Your task to perform on an android device: When is my next appointment? Image 0: 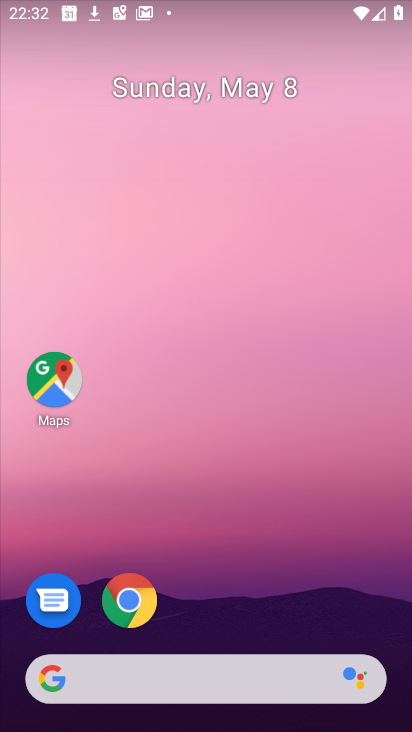
Step 0: drag from (236, 712) to (278, 263)
Your task to perform on an android device: When is my next appointment? Image 1: 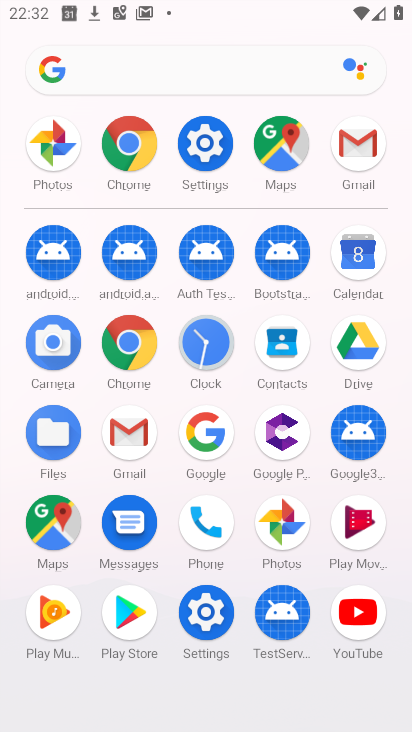
Step 1: click (349, 264)
Your task to perform on an android device: When is my next appointment? Image 2: 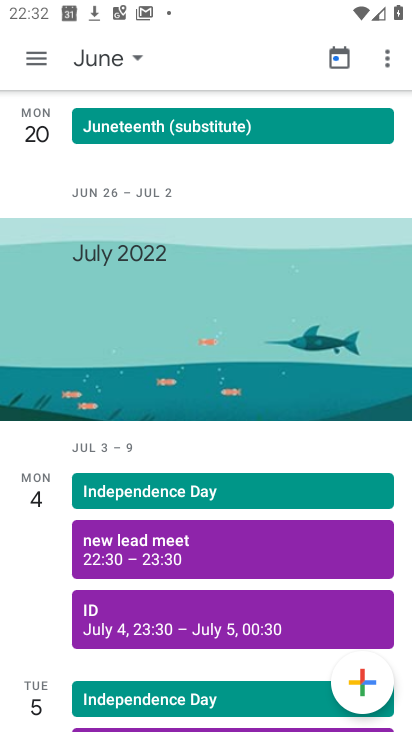
Step 2: click (38, 60)
Your task to perform on an android device: When is my next appointment? Image 3: 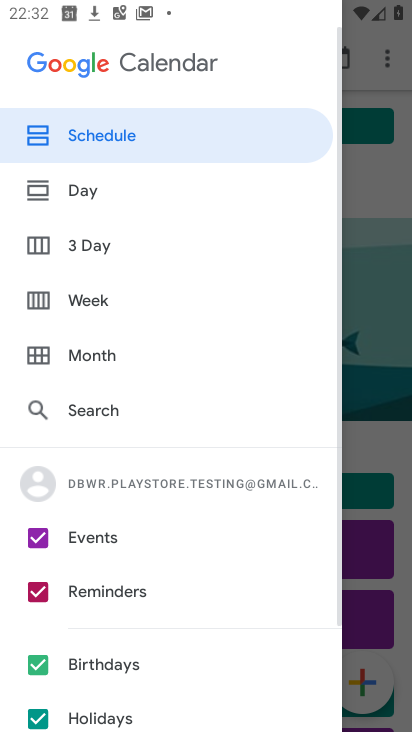
Step 3: click (87, 353)
Your task to perform on an android device: When is my next appointment? Image 4: 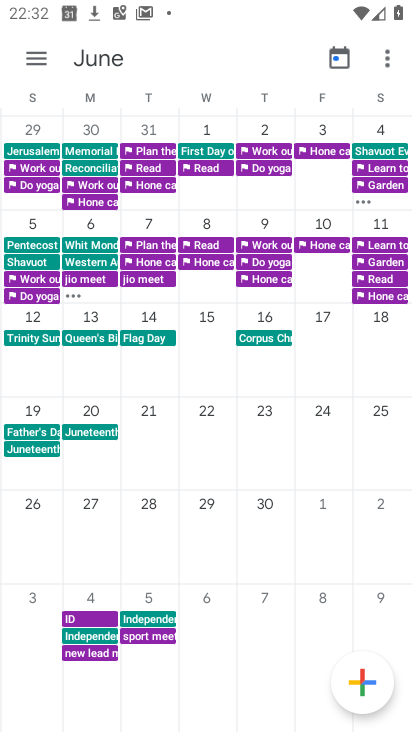
Step 4: click (22, 390)
Your task to perform on an android device: When is my next appointment? Image 5: 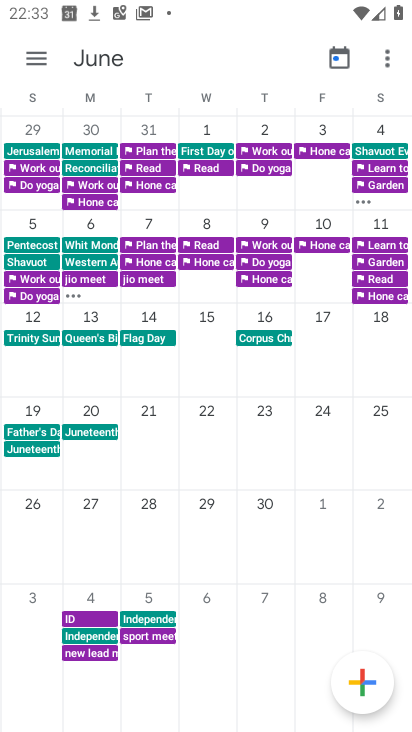
Step 5: drag from (83, 363) to (407, 283)
Your task to perform on an android device: When is my next appointment? Image 6: 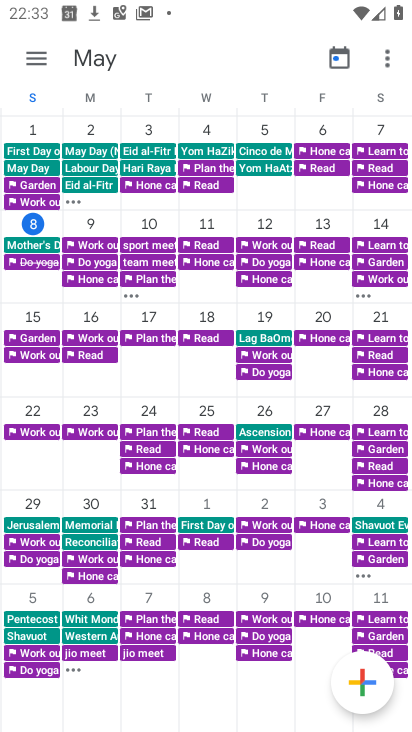
Step 6: click (25, 58)
Your task to perform on an android device: When is my next appointment? Image 7: 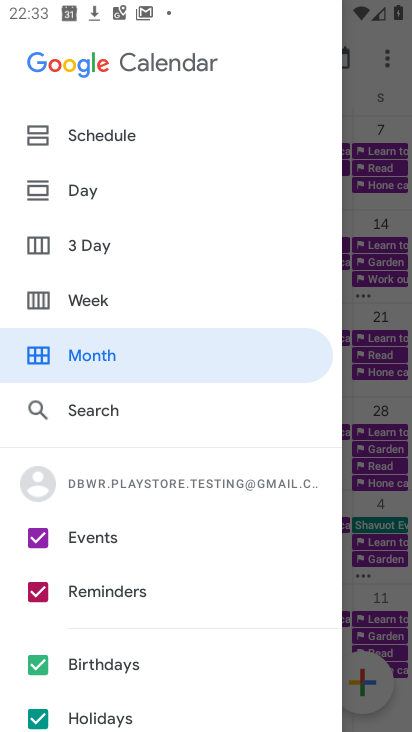
Step 7: click (99, 131)
Your task to perform on an android device: When is my next appointment? Image 8: 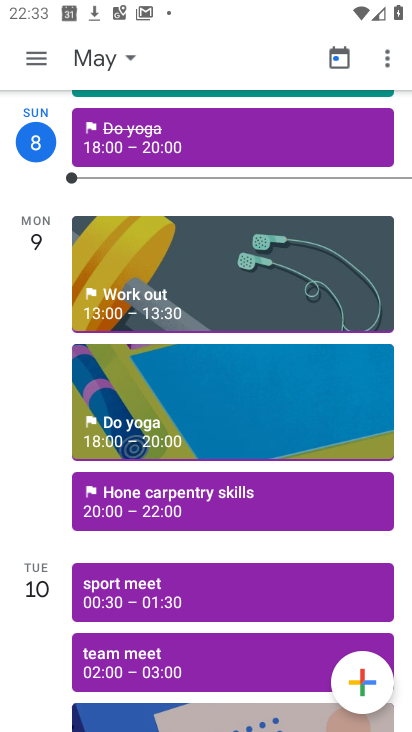
Step 8: task complete